Your task to perform on an android device: set the stopwatch Image 0: 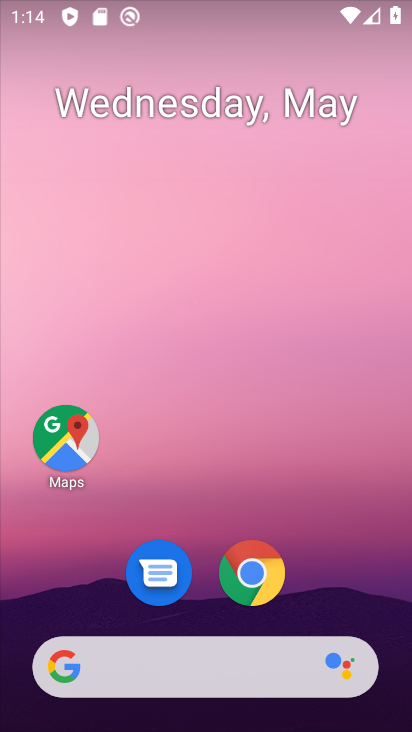
Step 0: drag from (212, 622) to (190, 243)
Your task to perform on an android device: set the stopwatch Image 1: 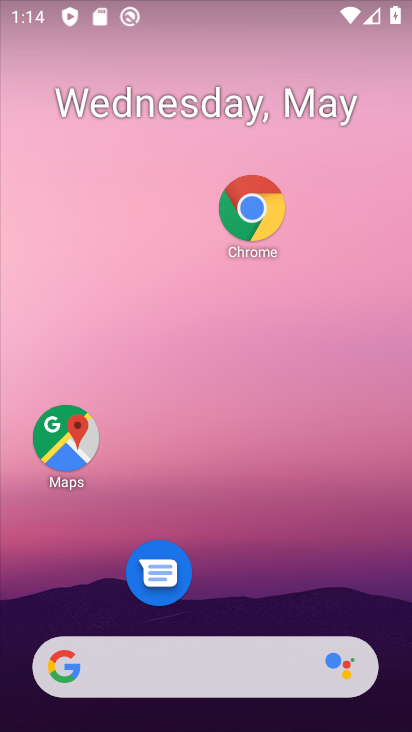
Step 1: drag from (224, 617) to (200, 261)
Your task to perform on an android device: set the stopwatch Image 2: 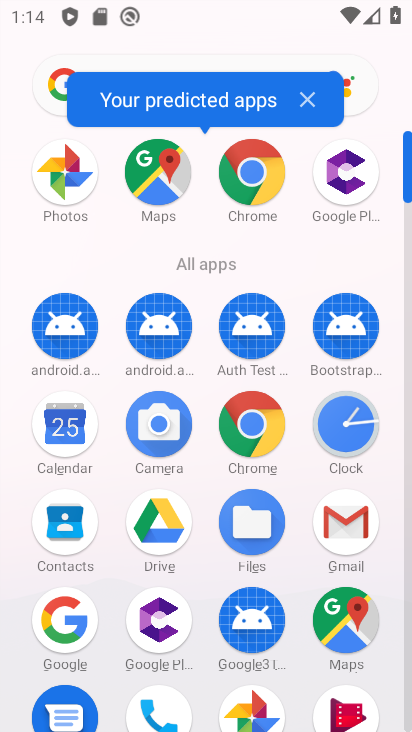
Step 2: click (347, 421)
Your task to perform on an android device: set the stopwatch Image 3: 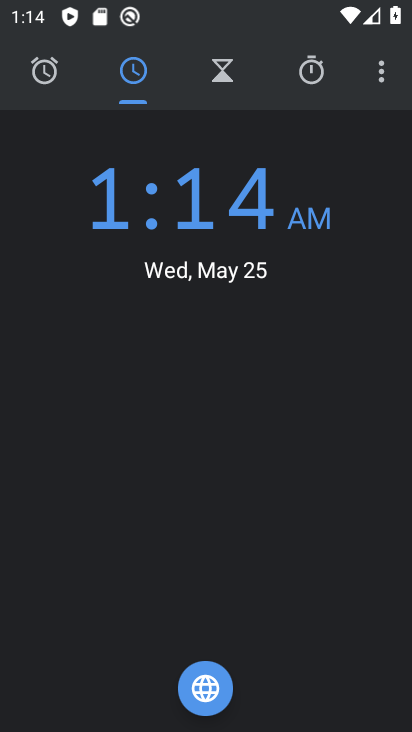
Step 3: click (310, 71)
Your task to perform on an android device: set the stopwatch Image 4: 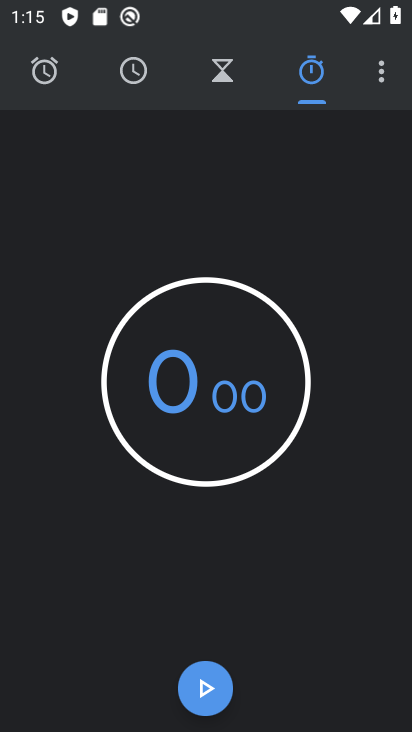
Step 4: click (199, 673)
Your task to perform on an android device: set the stopwatch Image 5: 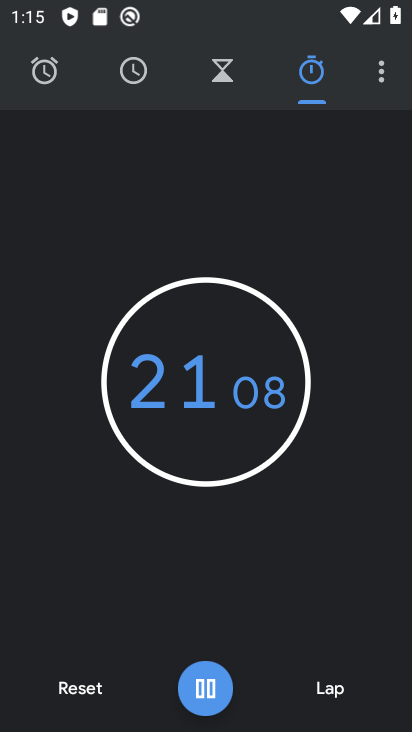
Step 5: task complete